Your task to perform on an android device: turn off smart reply in the gmail app Image 0: 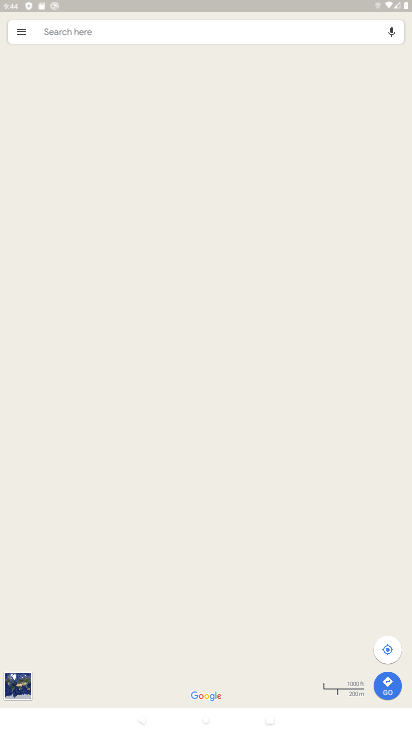
Step 0: press home button
Your task to perform on an android device: turn off smart reply in the gmail app Image 1: 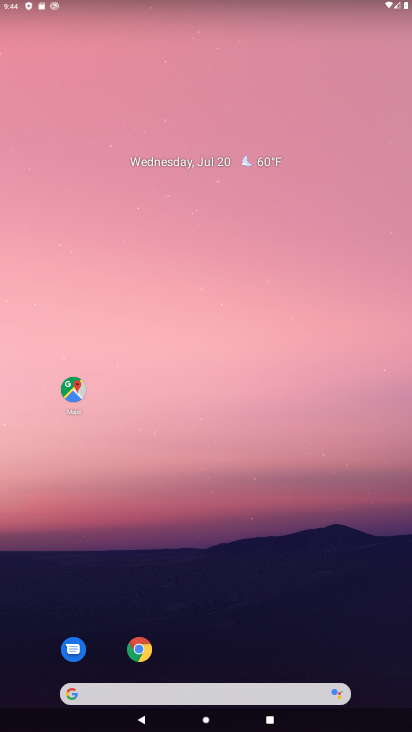
Step 1: drag from (388, 695) to (268, 152)
Your task to perform on an android device: turn off smart reply in the gmail app Image 2: 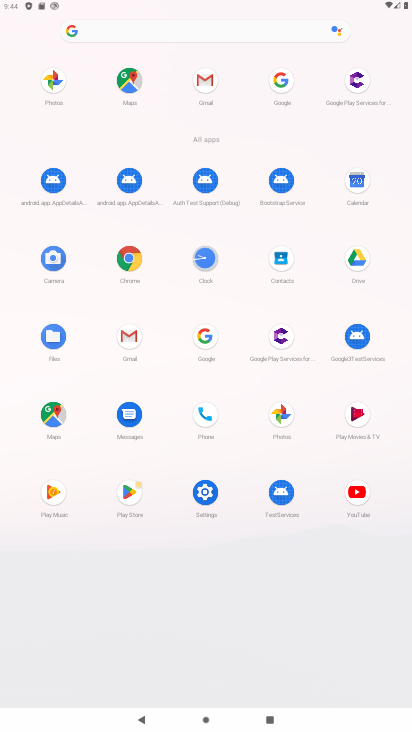
Step 2: drag from (133, 333) to (167, 368)
Your task to perform on an android device: turn off smart reply in the gmail app Image 3: 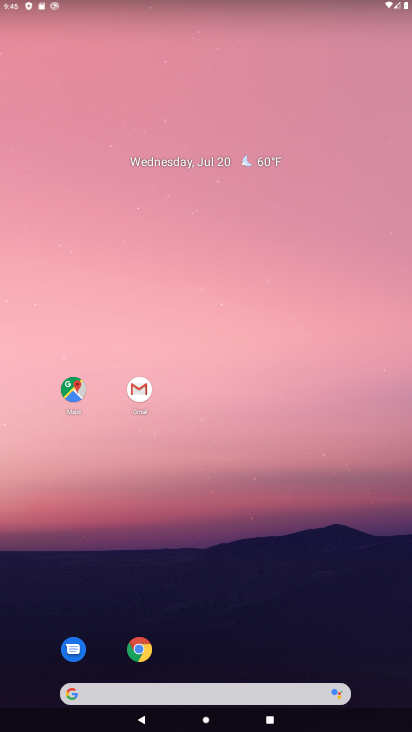
Step 3: click (136, 392)
Your task to perform on an android device: turn off smart reply in the gmail app Image 4: 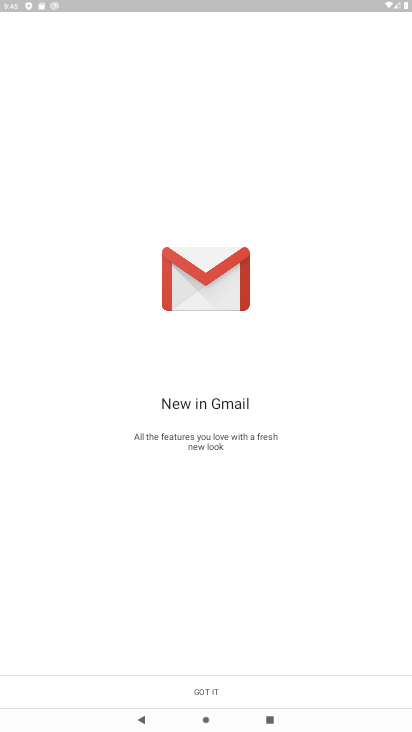
Step 4: click (212, 693)
Your task to perform on an android device: turn off smart reply in the gmail app Image 5: 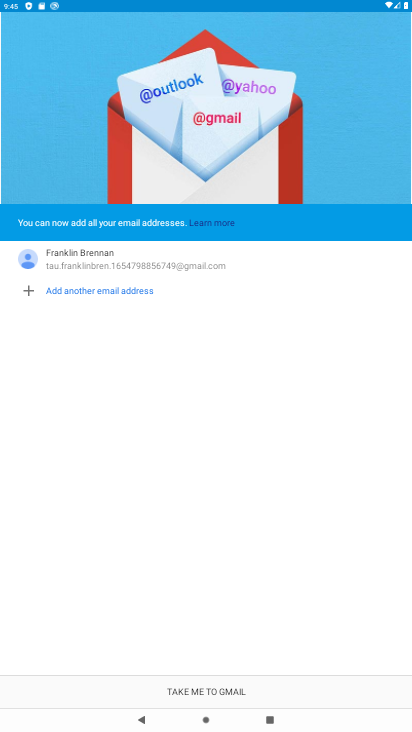
Step 5: click (212, 693)
Your task to perform on an android device: turn off smart reply in the gmail app Image 6: 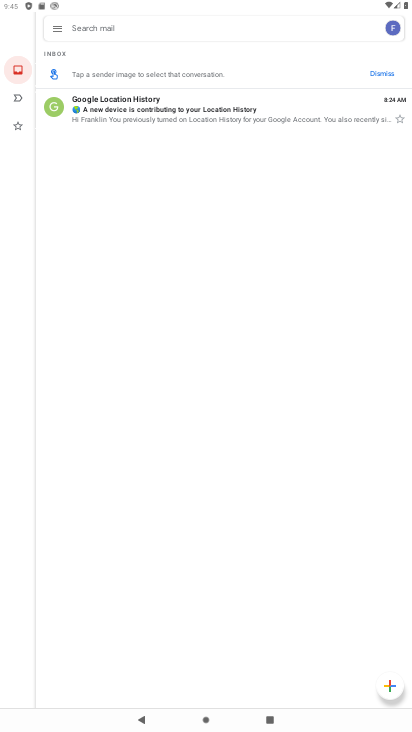
Step 6: click (50, 26)
Your task to perform on an android device: turn off smart reply in the gmail app Image 7: 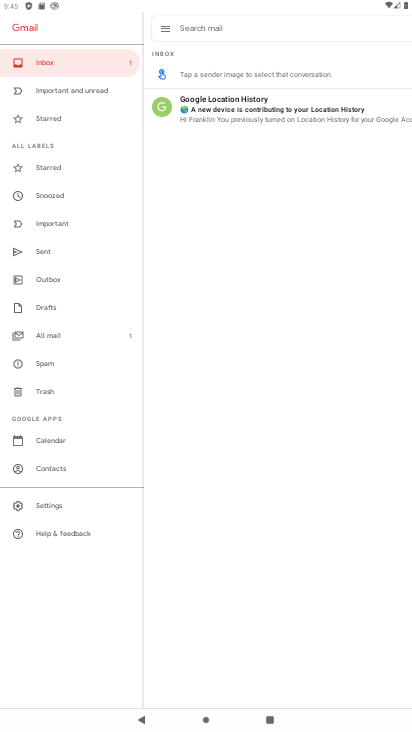
Step 7: click (43, 499)
Your task to perform on an android device: turn off smart reply in the gmail app Image 8: 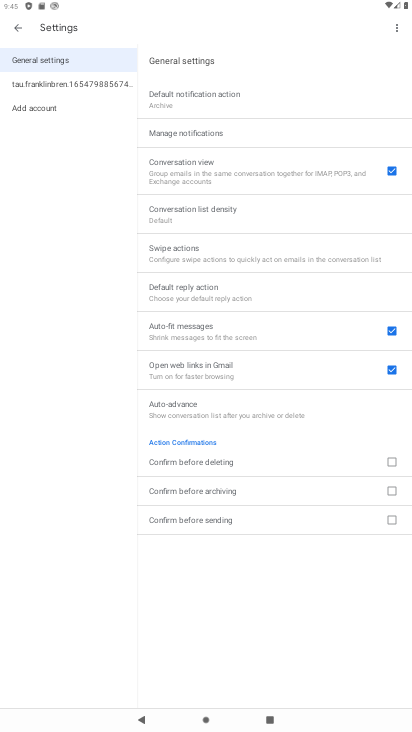
Step 8: click (78, 81)
Your task to perform on an android device: turn off smart reply in the gmail app Image 9: 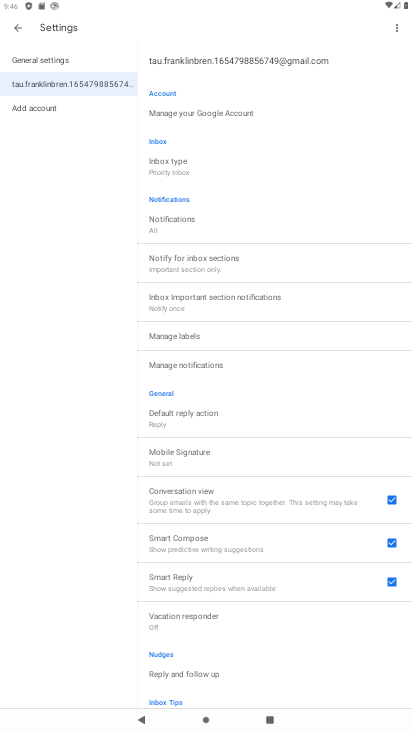
Step 9: click (176, 579)
Your task to perform on an android device: turn off smart reply in the gmail app Image 10: 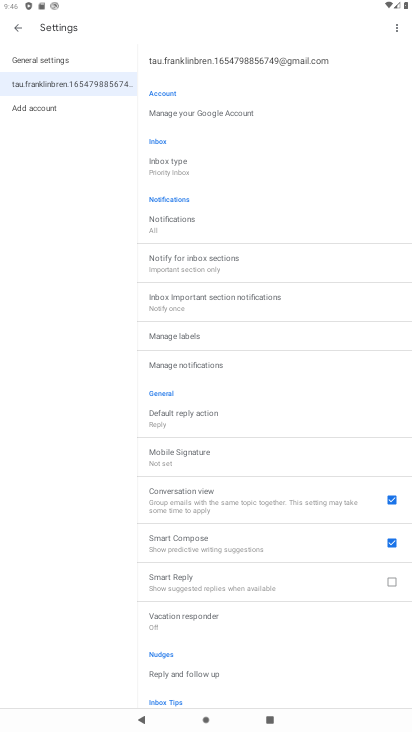
Step 10: task complete